Your task to perform on an android device: Go to sound settings Image 0: 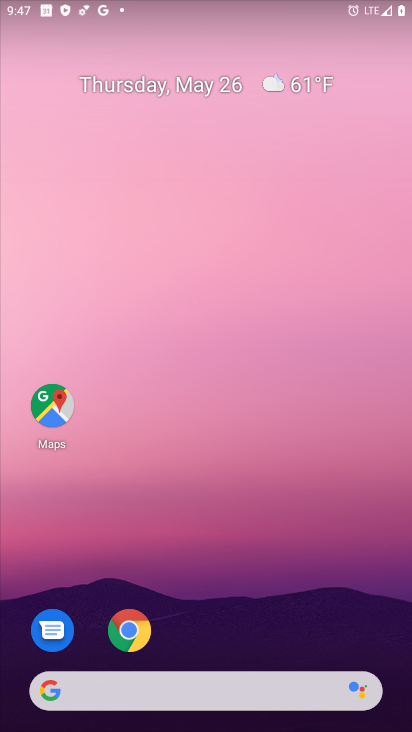
Step 0: drag from (200, 634) to (190, 263)
Your task to perform on an android device: Go to sound settings Image 1: 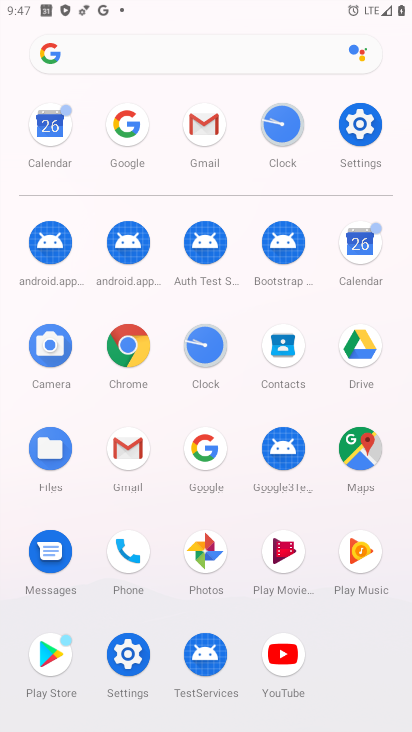
Step 1: click (345, 122)
Your task to perform on an android device: Go to sound settings Image 2: 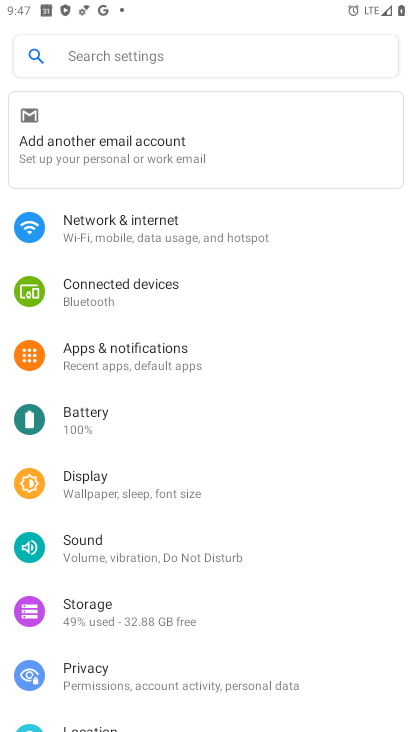
Step 2: click (114, 545)
Your task to perform on an android device: Go to sound settings Image 3: 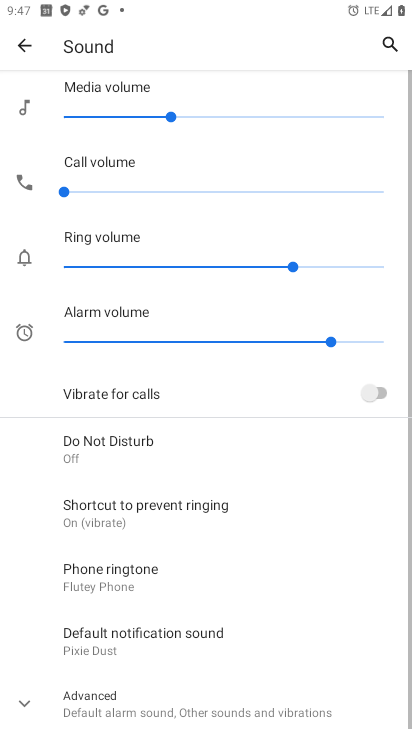
Step 3: task complete